Your task to perform on an android device: check data usage Image 0: 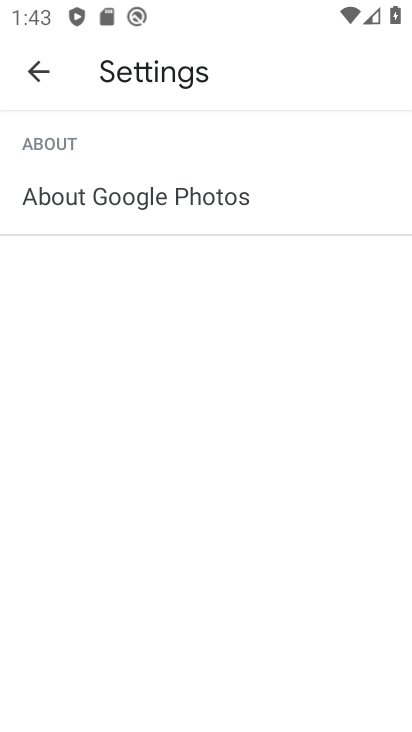
Step 0: drag from (269, 526) to (261, 363)
Your task to perform on an android device: check data usage Image 1: 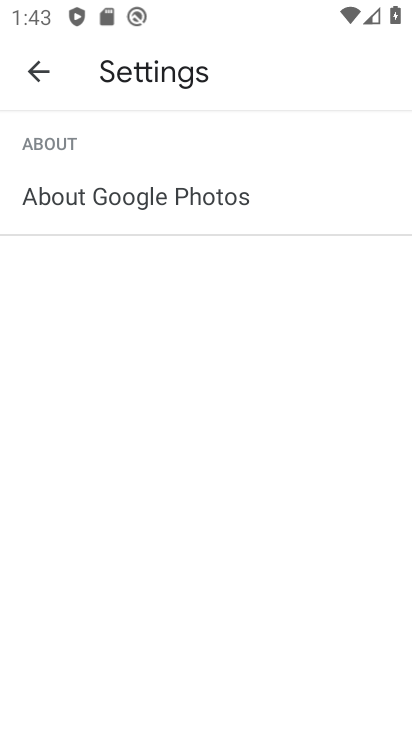
Step 1: press home button
Your task to perform on an android device: check data usage Image 2: 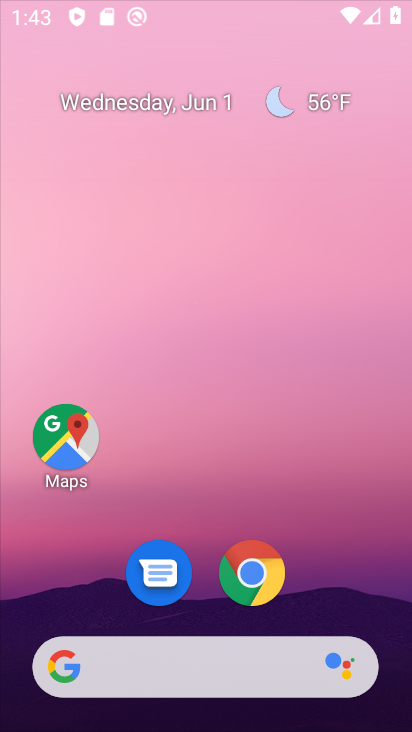
Step 2: drag from (158, 570) to (185, 56)
Your task to perform on an android device: check data usage Image 3: 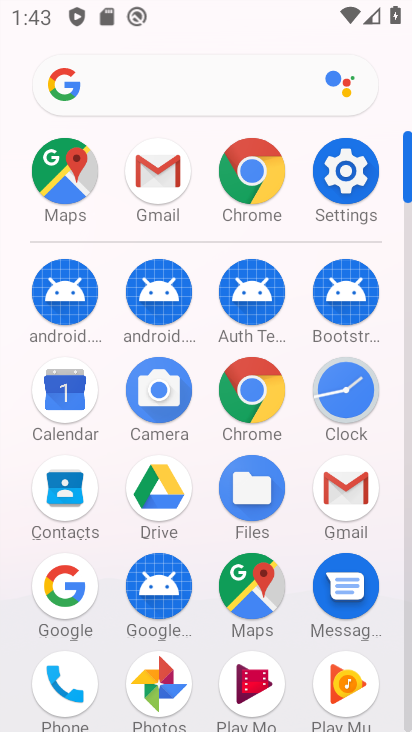
Step 3: click (331, 180)
Your task to perform on an android device: check data usage Image 4: 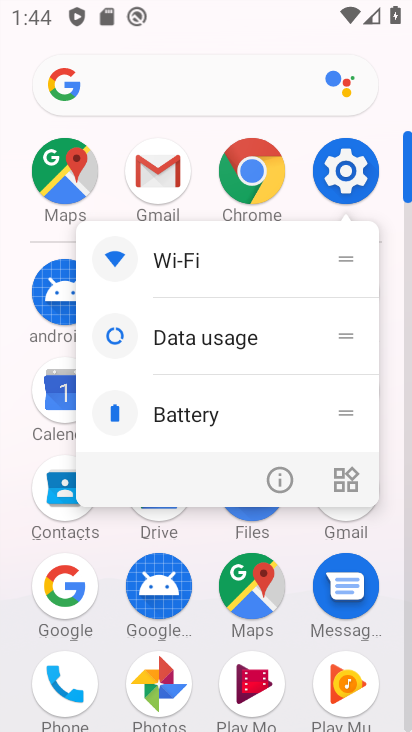
Step 4: click (198, 318)
Your task to perform on an android device: check data usage Image 5: 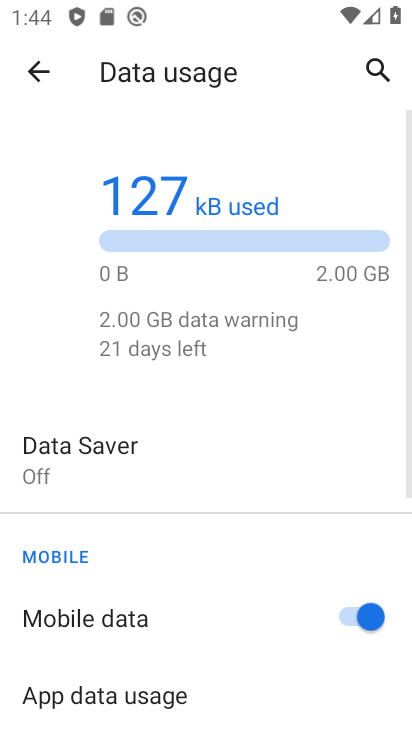
Step 5: task complete